Your task to perform on an android device: change timer sound Image 0: 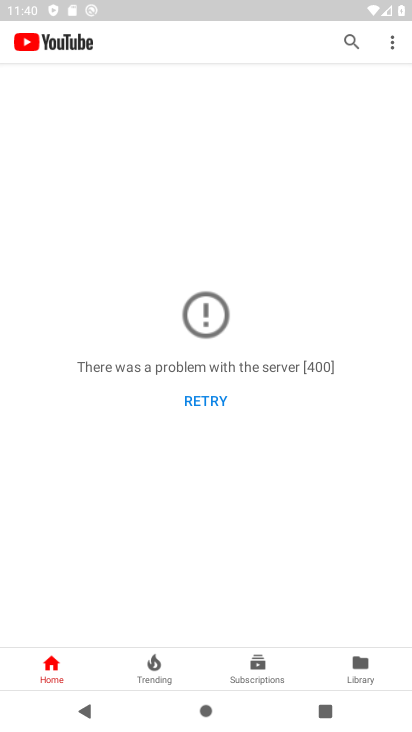
Step 0: press home button
Your task to perform on an android device: change timer sound Image 1: 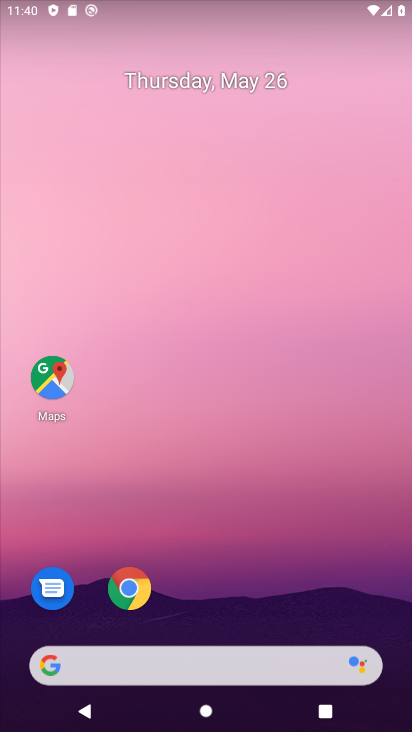
Step 1: drag from (327, 583) to (333, 302)
Your task to perform on an android device: change timer sound Image 2: 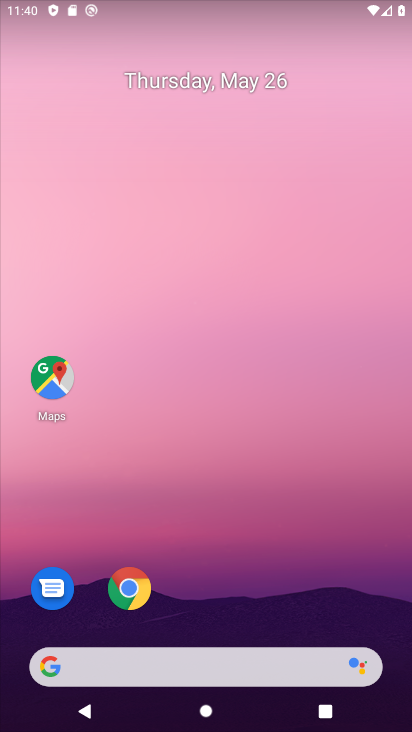
Step 2: drag from (277, 632) to (298, 274)
Your task to perform on an android device: change timer sound Image 3: 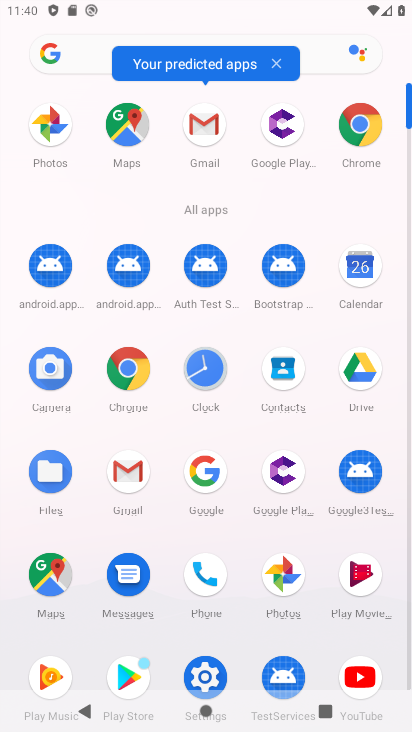
Step 3: click (202, 387)
Your task to perform on an android device: change timer sound Image 4: 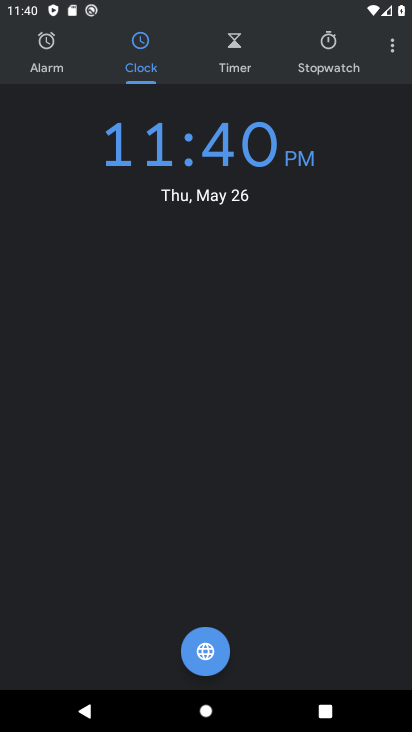
Step 4: click (395, 43)
Your task to perform on an android device: change timer sound Image 5: 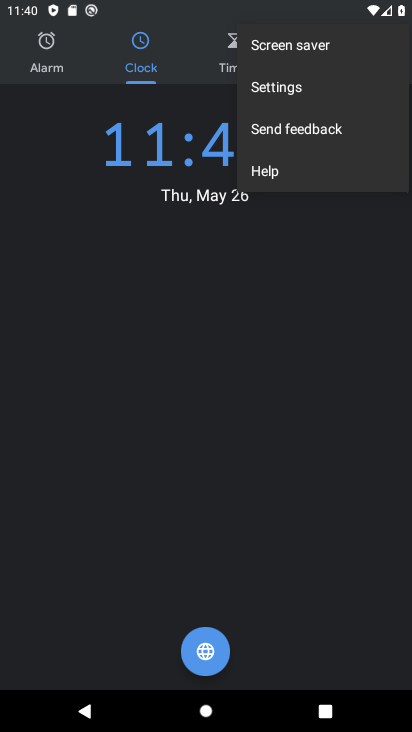
Step 5: click (273, 99)
Your task to perform on an android device: change timer sound Image 6: 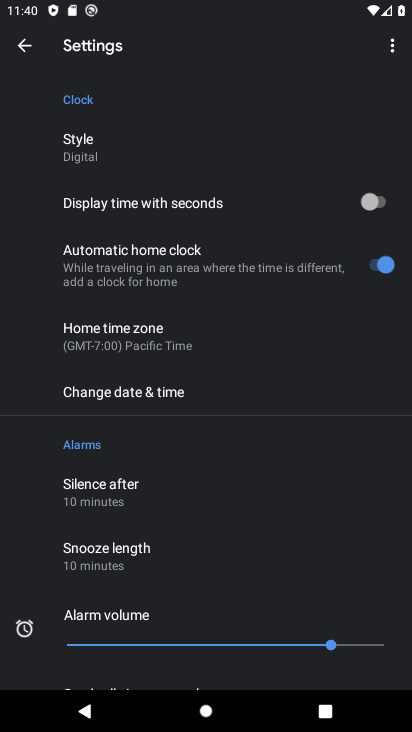
Step 6: drag from (265, 544) to (346, 223)
Your task to perform on an android device: change timer sound Image 7: 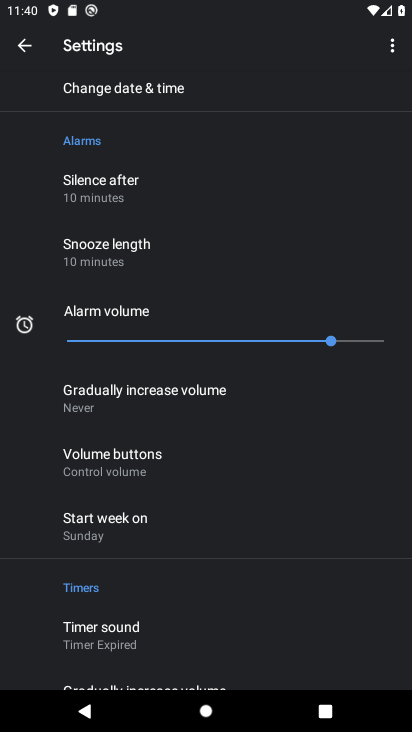
Step 7: click (144, 645)
Your task to perform on an android device: change timer sound Image 8: 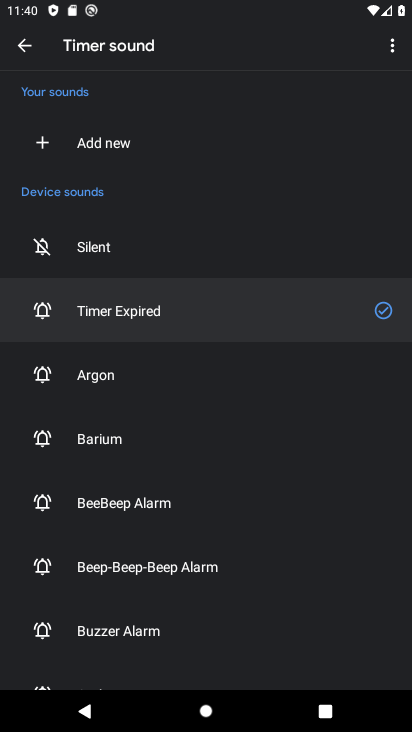
Step 8: drag from (167, 634) to (213, 389)
Your task to perform on an android device: change timer sound Image 9: 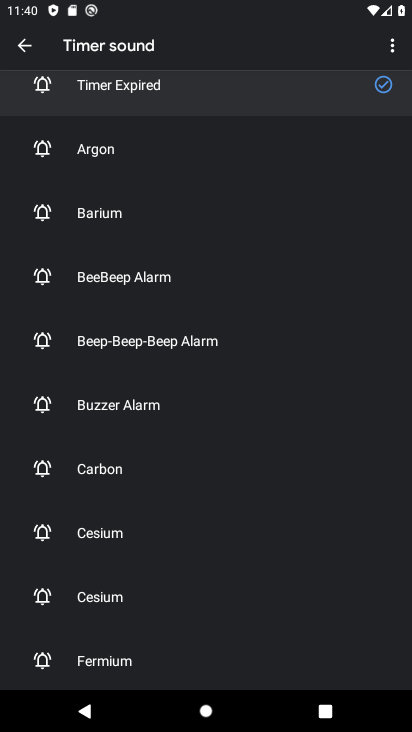
Step 9: click (112, 654)
Your task to perform on an android device: change timer sound Image 10: 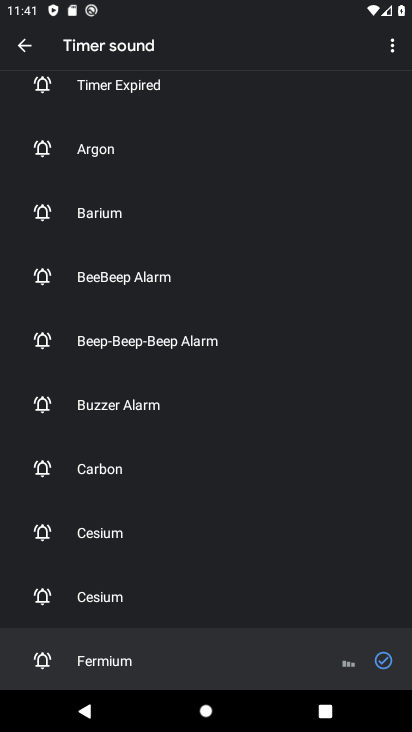
Step 10: task complete